Your task to perform on an android device: manage bookmarks in the chrome app Image 0: 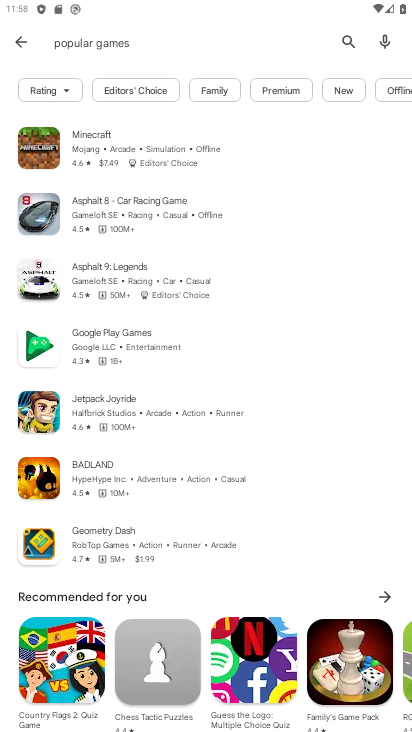
Step 0: press home button
Your task to perform on an android device: manage bookmarks in the chrome app Image 1: 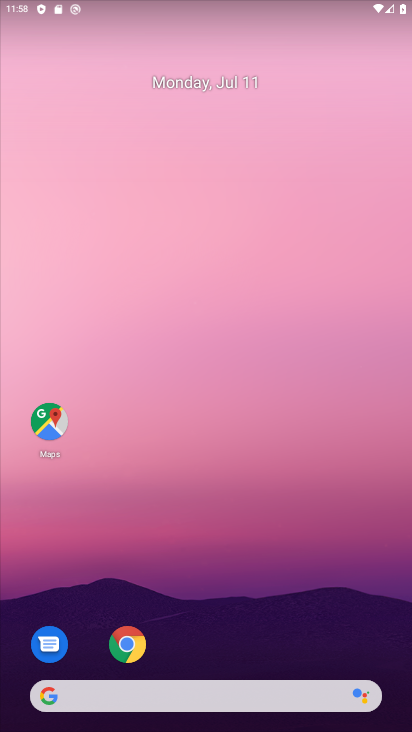
Step 1: click (121, 643)
Your task to perform on an android device: manage bookmarks in the chrome app Image 2: 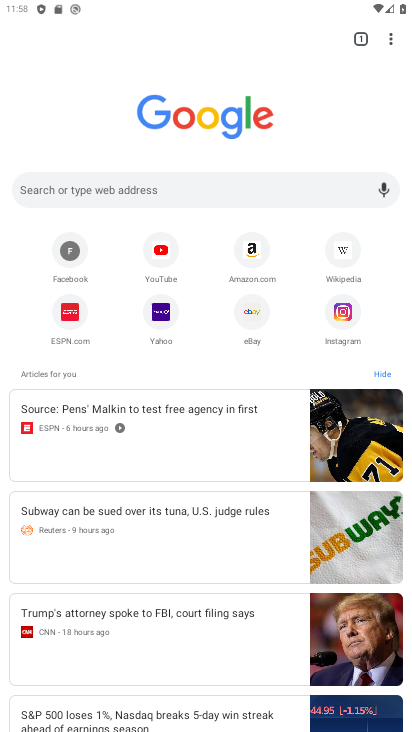
Step 2: click (383, 38)
Your task to perform on an android device: manage bookmarks in the chrome app Image 3: 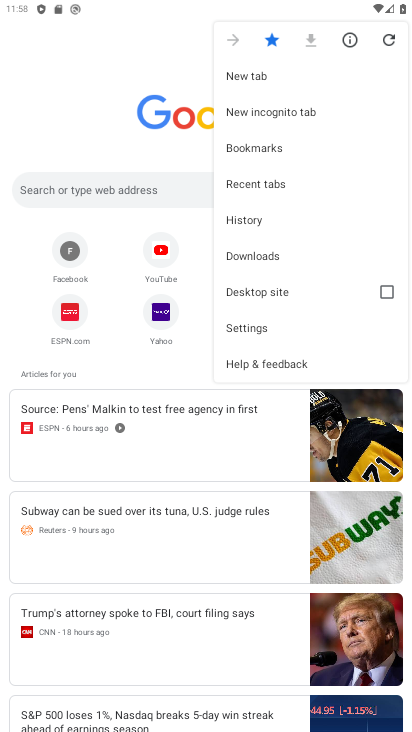
Step 3: click (262, 144)
Your task to perform on an android device: manage bookmarks in the chrome app Image 4: 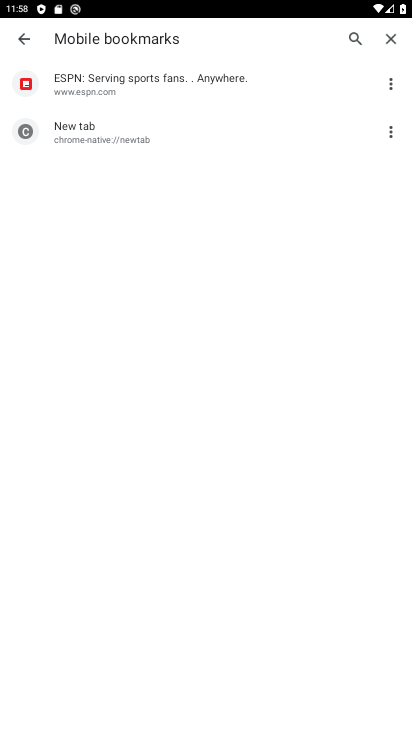
Step 4: task complete